Your task to perform on an android device: Go to calendar. Show me events next week Image 0: 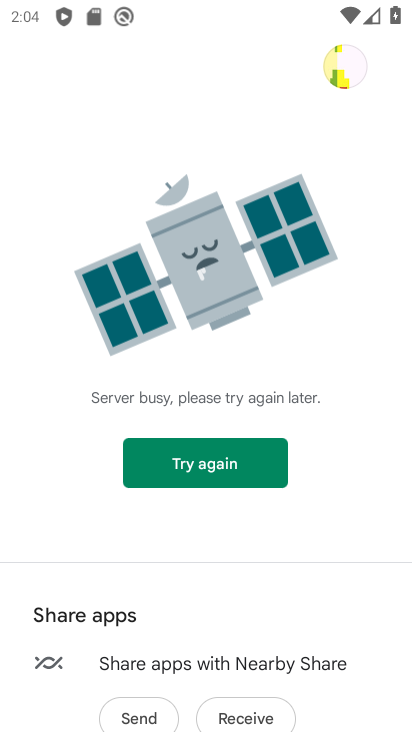
Step 0: press home button
Your task to perform on an android device: Go to calendar. Show me events next week Image 1: 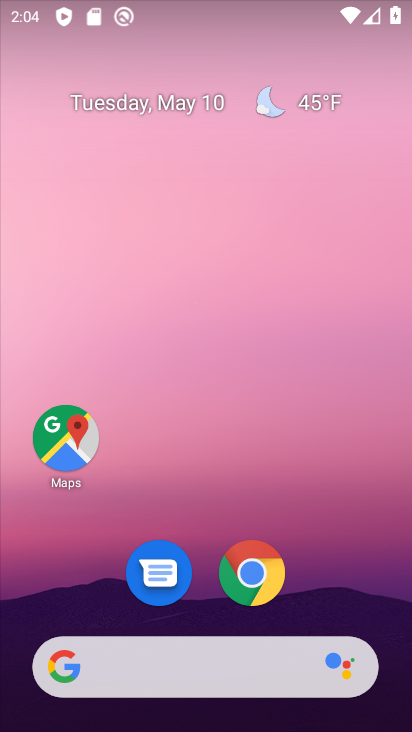
Step 1: drag from (214, 617) to (216, 113)
Your task to perform on an android device: Go to calendar. Show me events next week Image 2: 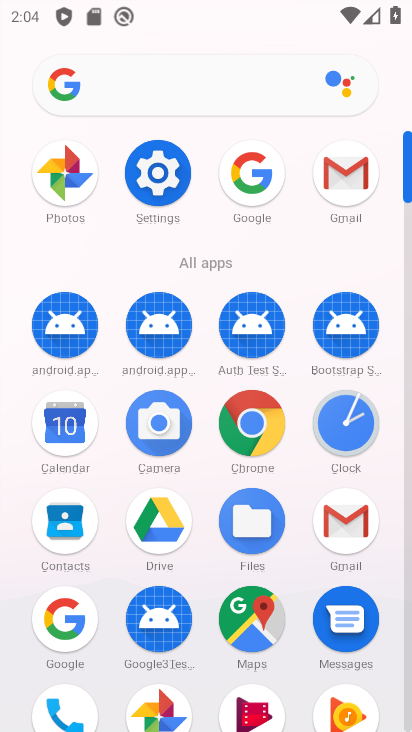
Step 2: click (71, 446)
Your task to perform on an android device: Go to calendar. Show me events next week Image 3: 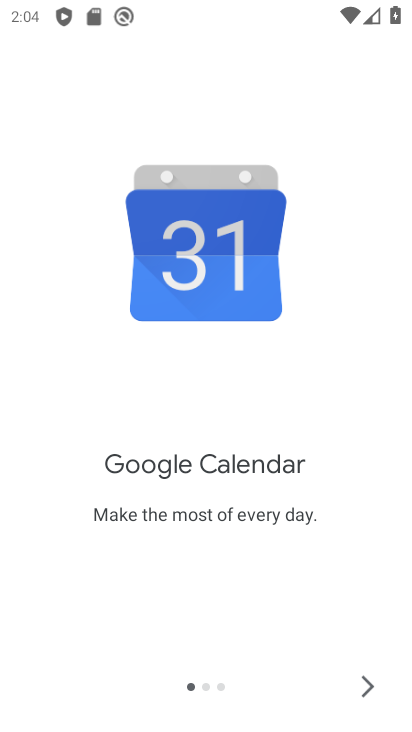
Step 3: click (385, 696)
Your task to perform on an android device: Go to calendar. Show me events next week Image 4: 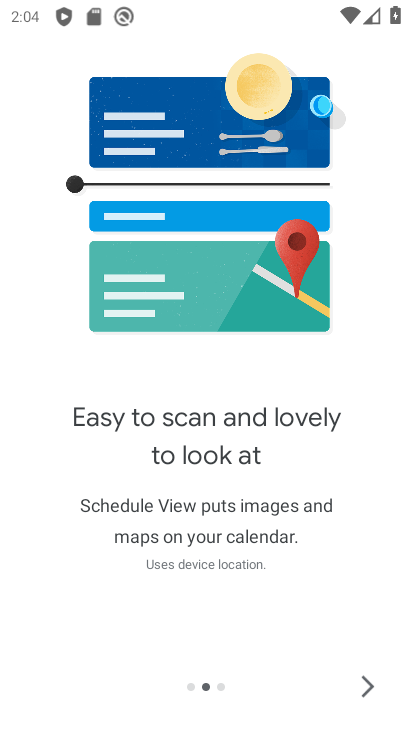
Step 4: click (383, 697)
Your task to perform on an android device: Go to calendar. Show me events next week Image 5: 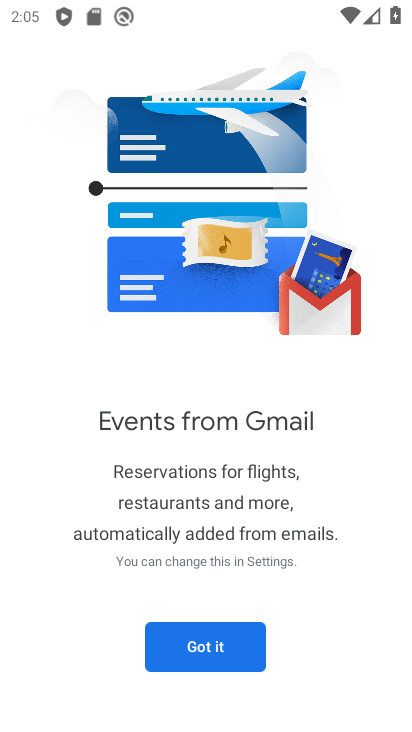
Step 5: click (231, 646)
Your task to perform on an android device: Go to calendar. Show me events next week Image 6: 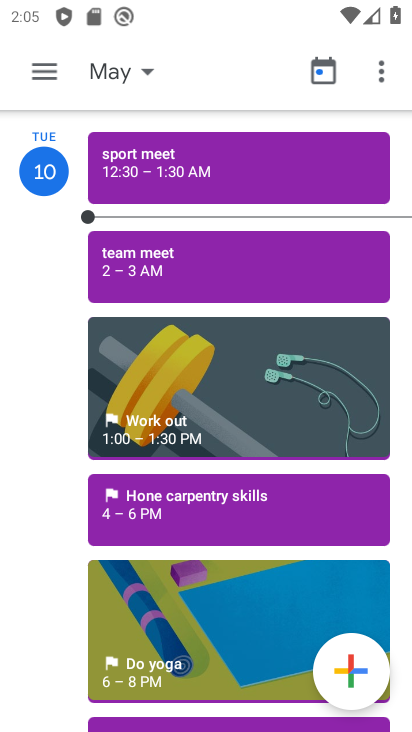
Step 6: click (39, 86)
Your task to perform on an android device: Go to calendar. Show me events next week Image 7: 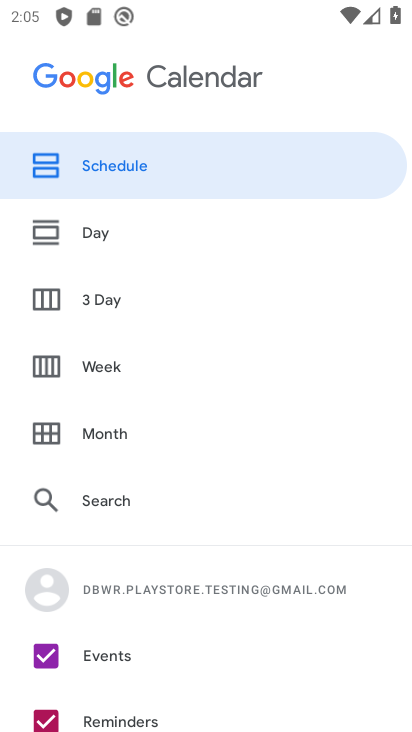
Step 7: click (134, 658)
Your task to perform on an android device: Go to calendar. Show me events next week Image 8: 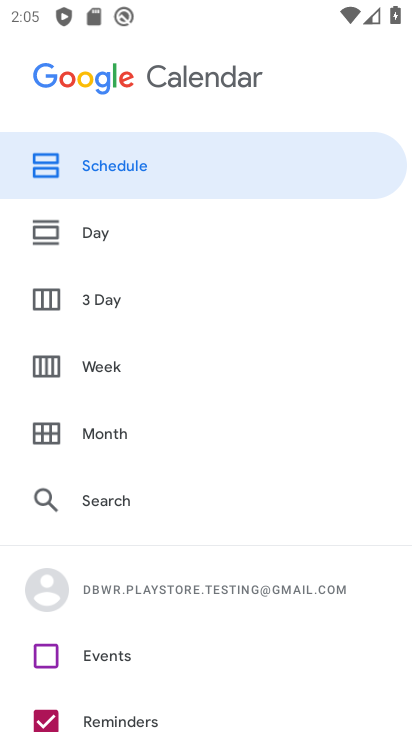
Step 8: click (103, 658)
Your task to perform on an android device: Go to calendar. Show me events next week Image 9: 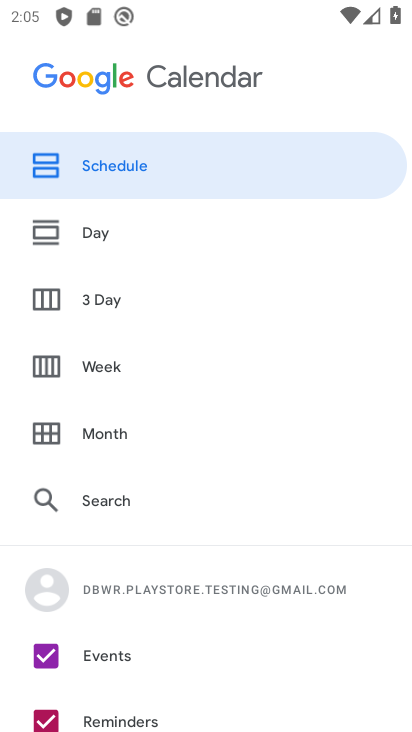
Step 9: click (334, 190)
Your task to perform on an android device: Go to calendar. Show me events next week Image 10: 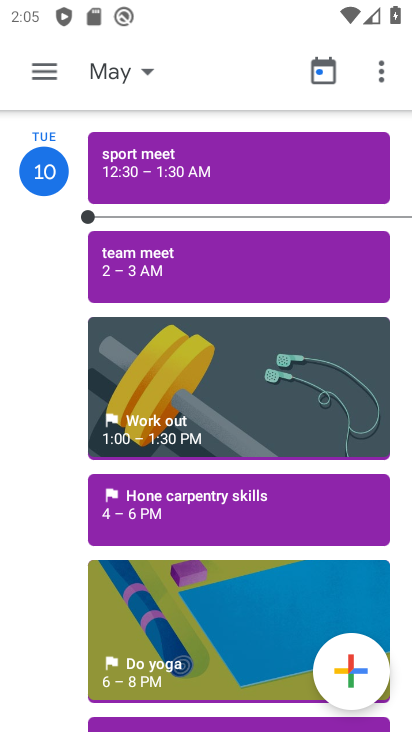
Step 10: click (139, 76)
Your task to perform on an android device: Go to calendar. Show me events next week Image 11: 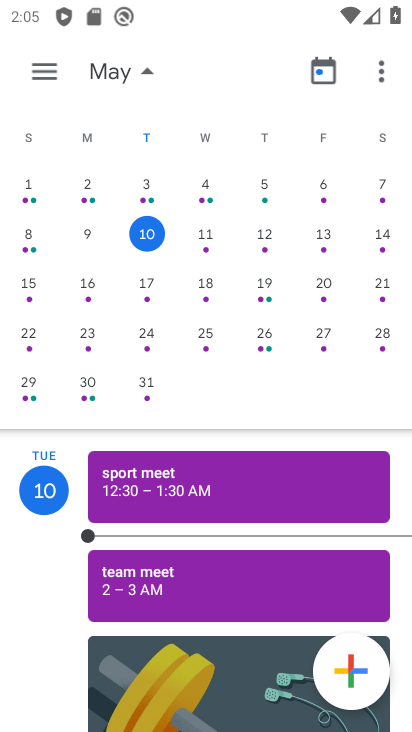
Step 11: click (155, 290)
Your task to perform on an android device: Go to calendar. Show me events next week Image 12: 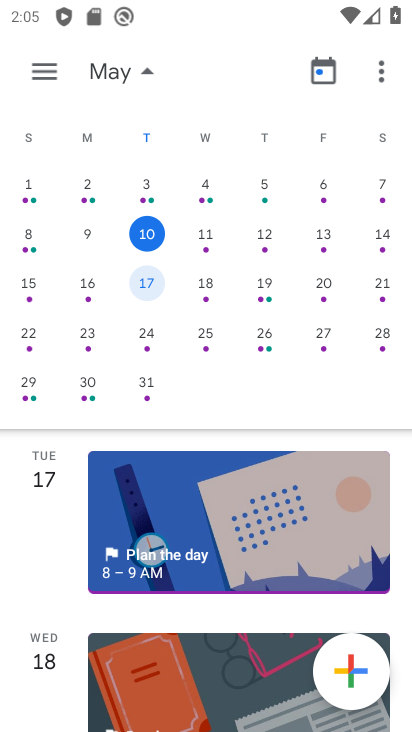
Step 12: click (84, 293)
Your task to perform on an android device: Go to calendar. Show me events next week Image 13: 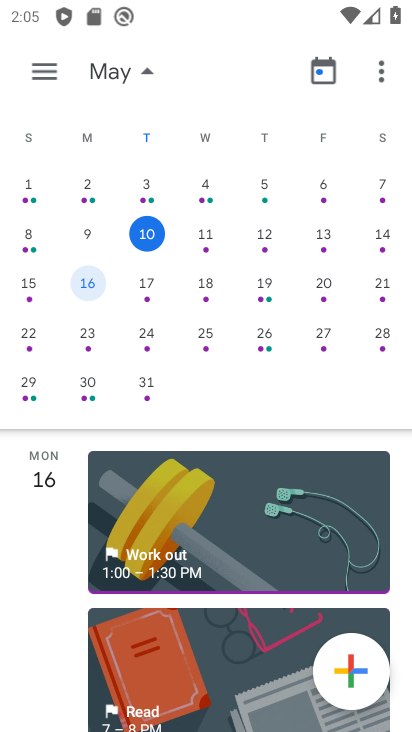
Step 13: task complete